Your task to perform on an android device: Do I have any events tomorrow? Image 0: 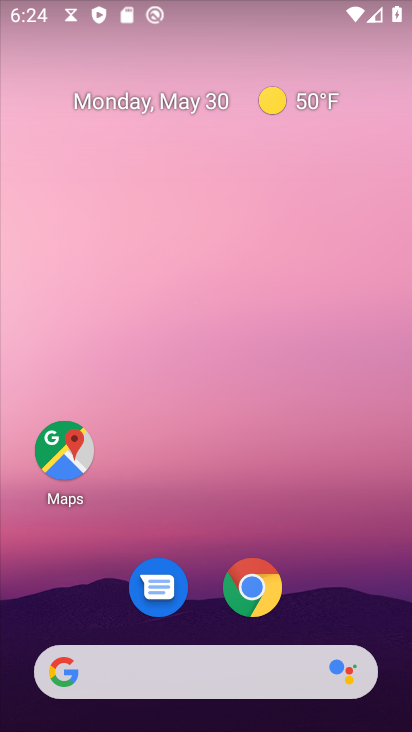
Step 0: drag from (366, 545) to (220, 16)
Your task to perform on an android device: Do I have any events tomorrow? Image 1: 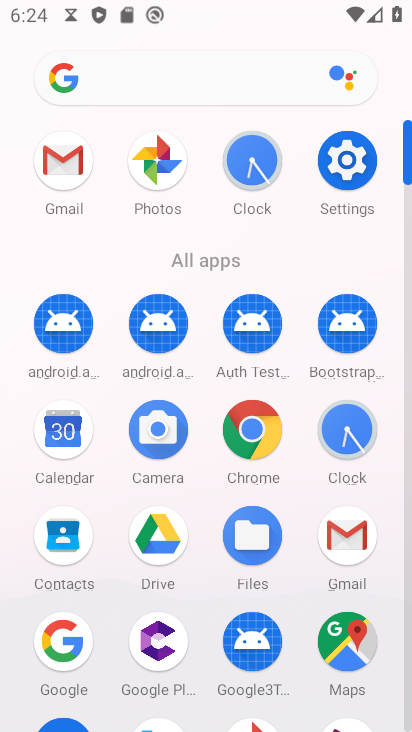
Step 1: drag from (15, 552) to (26, 227)
Your task to perform on an android device: Do I have any events tomorrow? Image 2: 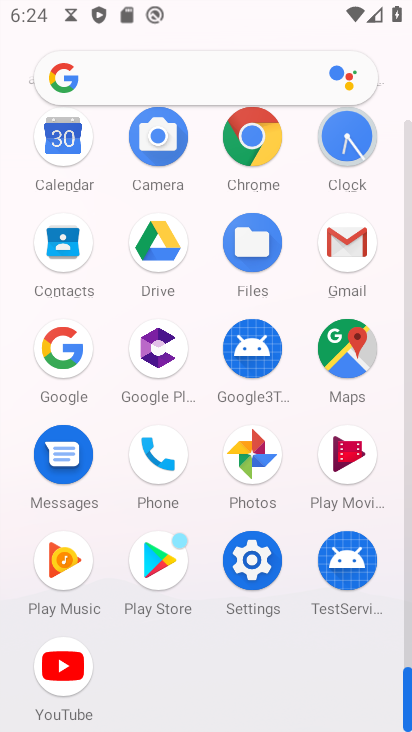
Step 2: drag from (8, 562) to (21, 242)
Your task to perform on an android device: Do I have any events tomorrow? Image 3: 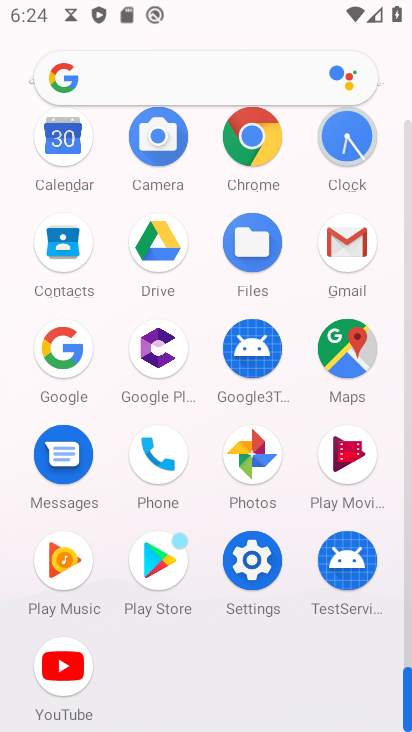
Step 3: click (254, 137)
Your task to perform on an android device: Do I have any events tomorrow? Image 4: 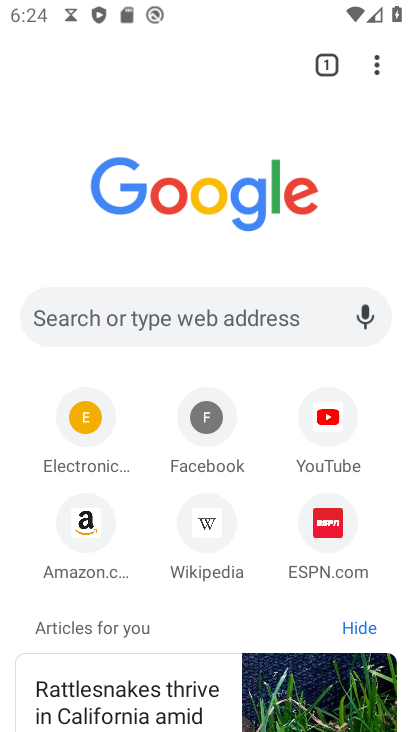
Step 4: click (165, 330)
Your task to perform on an android device: Do I have any events tomorrow? Image 5: 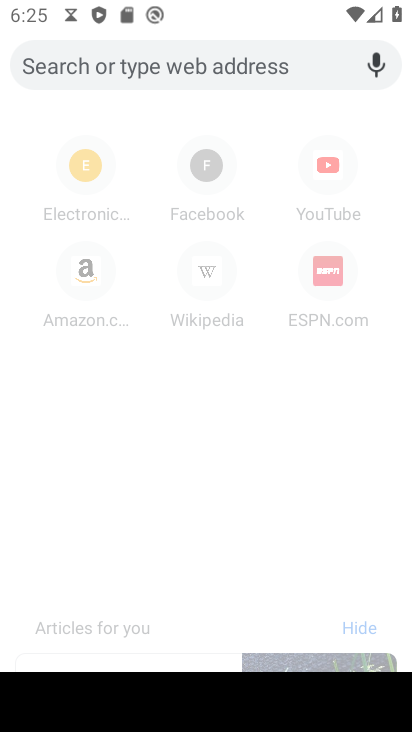
Step 5: press back button
Your task to perform on an android device: Do I have any events tomorrow? Image 6: 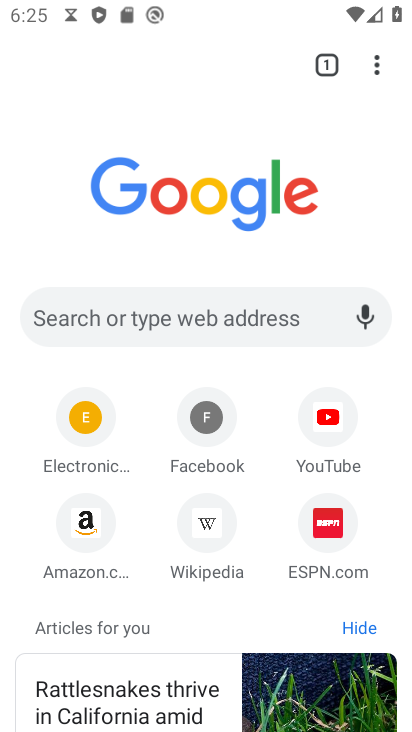
Step 6: press home button
Your task to perform on an android device: Do I have any events tomorrow? Image 7: 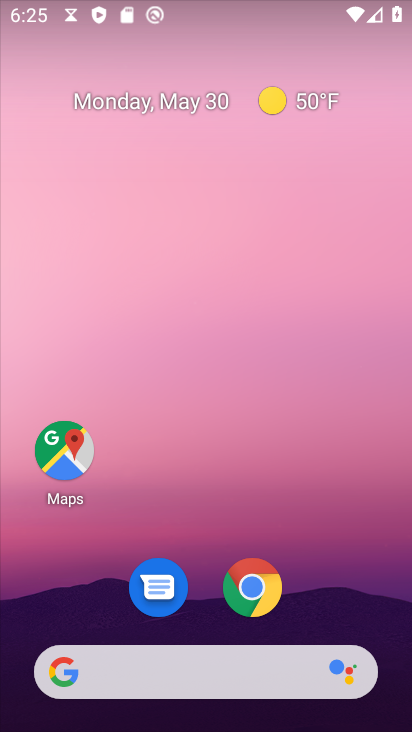
Step 7: drag from (330, 618) to (244, 45)
Your task to perform on an android device: Do I have any events tomorrow? Image 8: 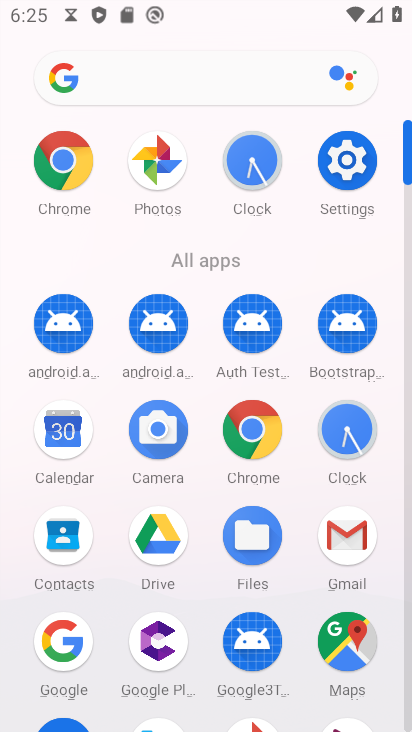
Step 8: drag from (4, 566) to (11, 268)
Your task to perform on an android device: Do I have any events tomorrow? Image 9: 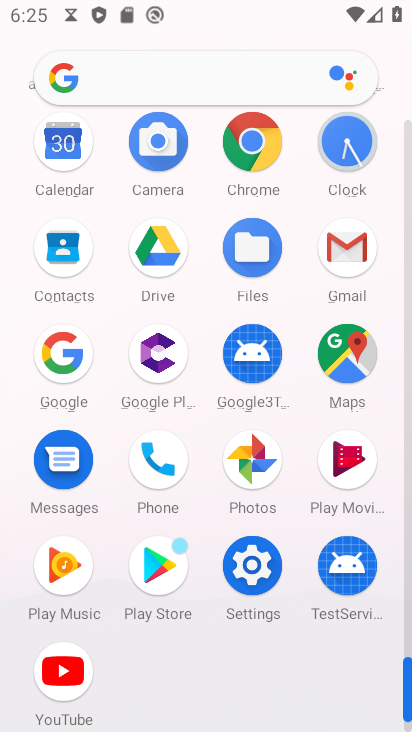
Step 9: click (58, 153)
Your task to perform on an android device: Do I have any events tomorrow? Image 10: 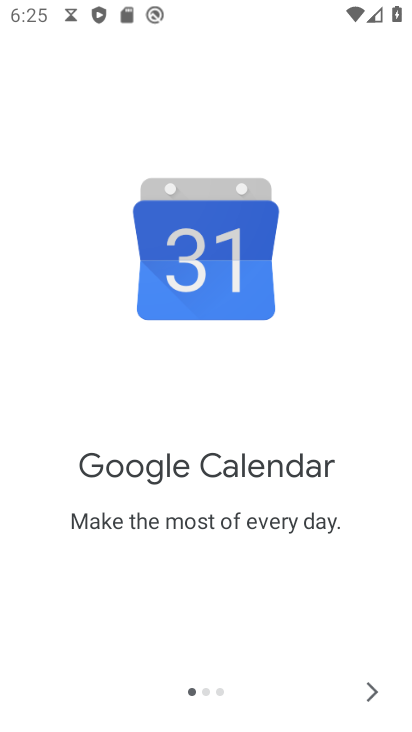
Step 10: click (371, 690)
Your task to perform on an android device: Do I have any events tomorrow? Image 11: 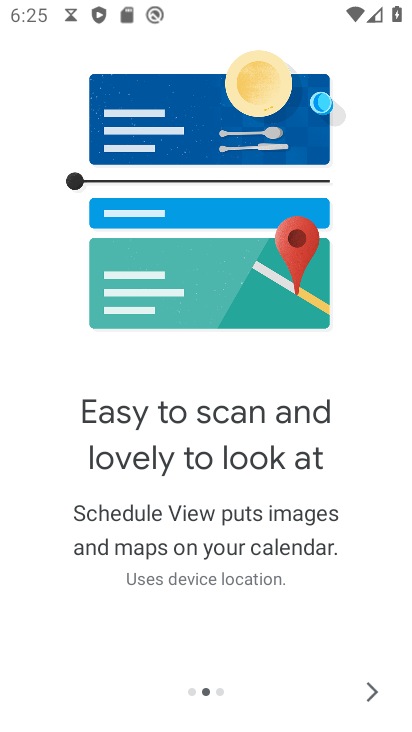
Step 11: click (371, 690)
Your task to perform on an android device: Do I have any events tomorrow? Image 12: 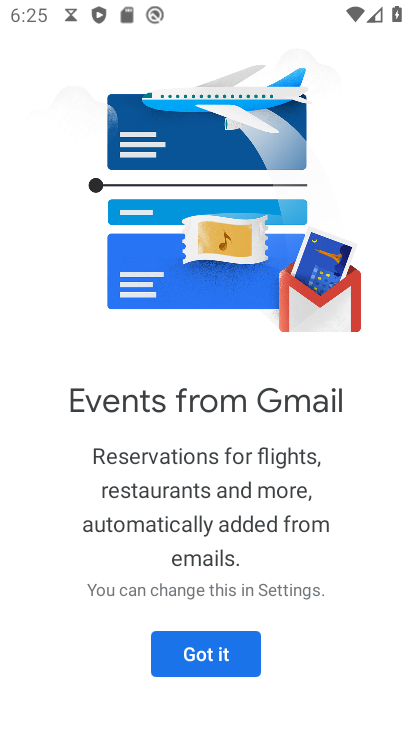
Step 12: click (223, 656)
Your task to perform on an android device: Do I have any events tomorrow? Image 13: 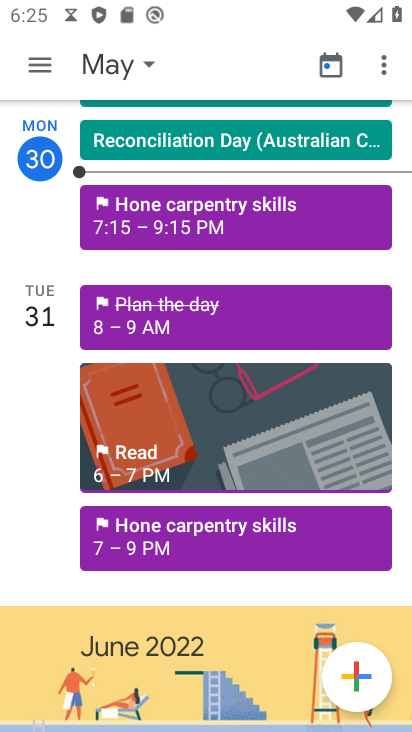
Step 13: click (39, 61)
Your task to perform on an android device: Do I have any events tomorrow? Image 14: 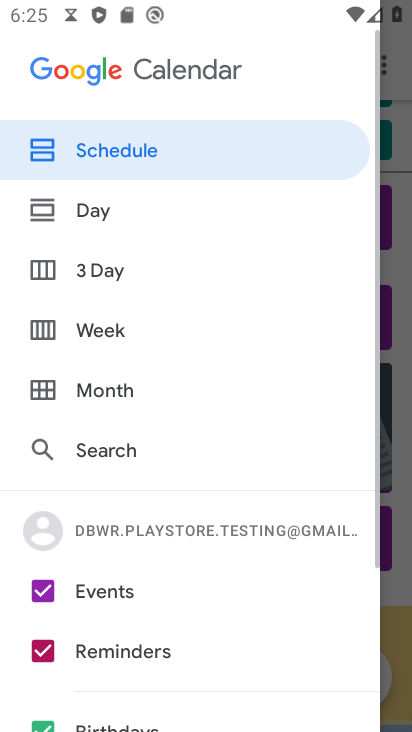
Step 14: click (128, 132)
Your task to perform on an android device: Do I have any events tomorrow? Image 15: 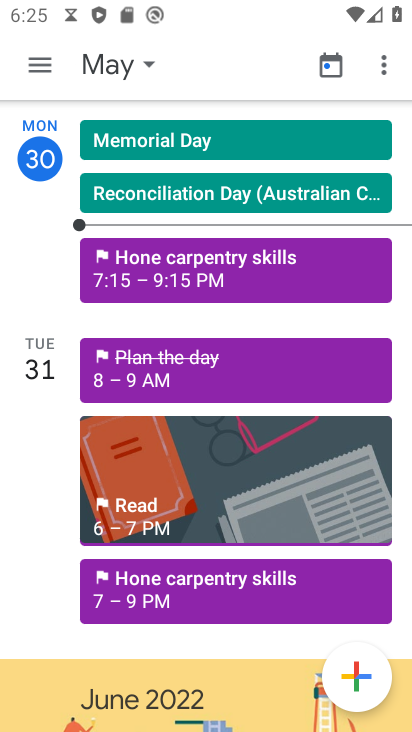
Step 15: drag from (320, 525) to (314, 188)
Your task to perform on an android device: Do I have any events tomorrow? Image 16: 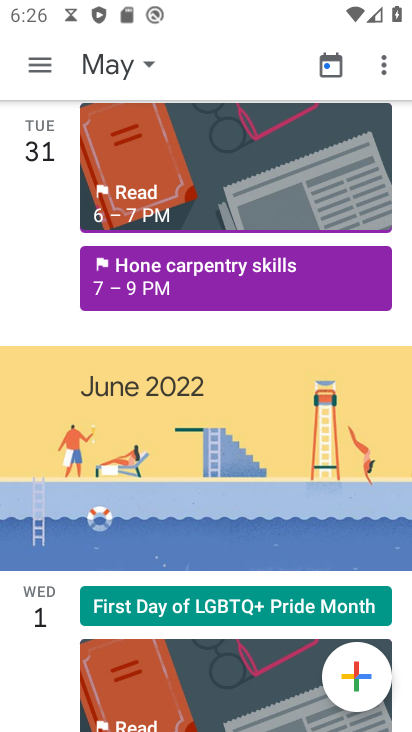
Step 16: click (42, 57)
Your task to perform on an android device: Do I have any events tomorrow? Image 17: 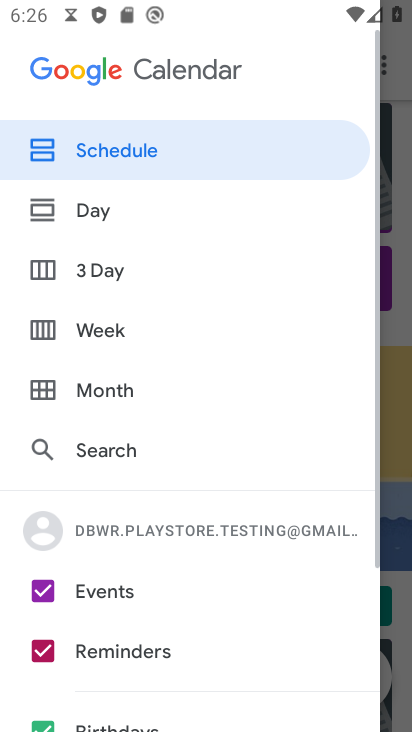
Step 17: click (138, 132)
Your task to perform on an android device: Do I have any events tomorrow? Image 18: 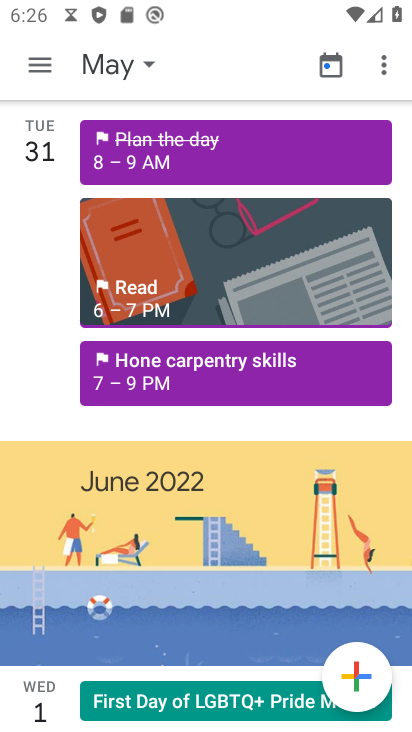
Step 18: task complete